Your task to perform on an android device: toggle airplane mode Image 0: 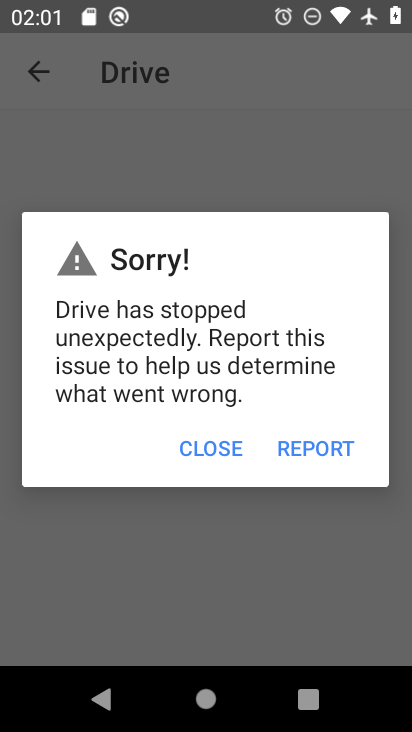
Step 0: press home button
Your task to perform on an android device: toggle airplane mode Image 1: 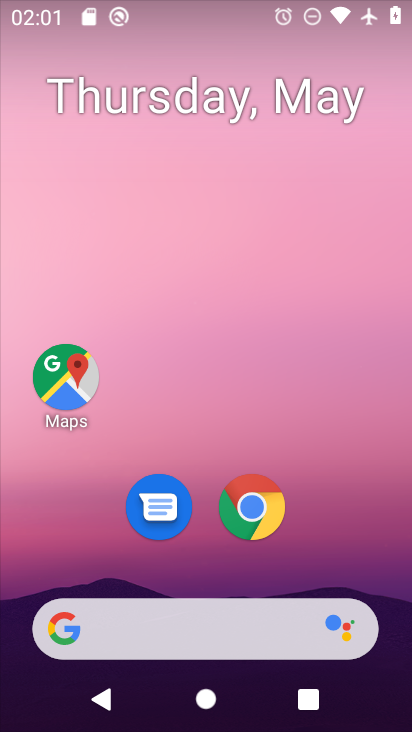
Step 1: drag from (348, 564) to (339, 131)
Your task to perform on an android device: toggle airplane mode Image 2: 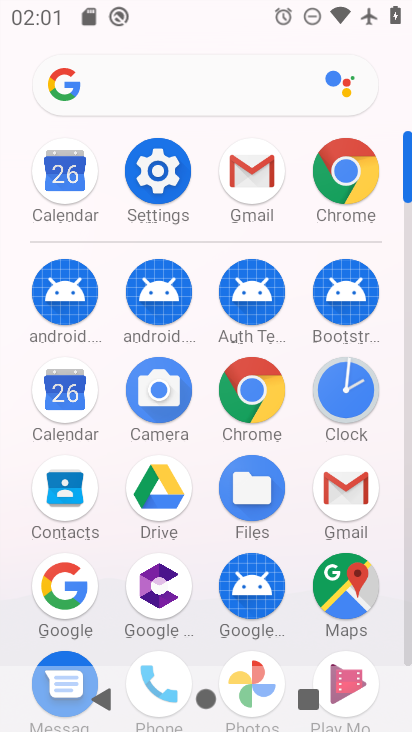
Step 2: click (147, 176)
Your task to perform on an android device: toggle airplane mode Image 3: 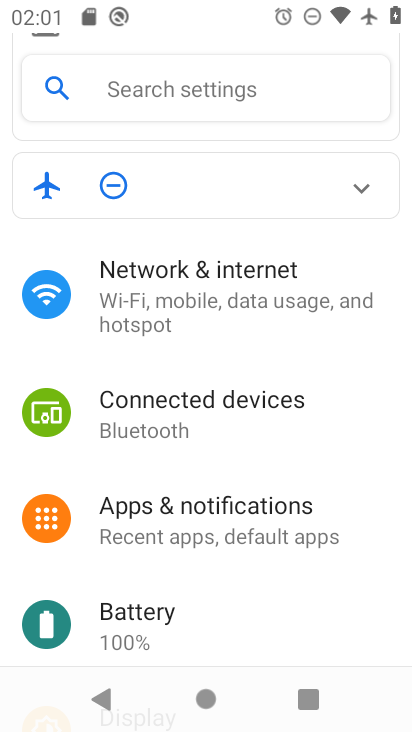
Step 3: click (354, 182)
Your task to perform on an android device: toggle airplane mode Image 4: 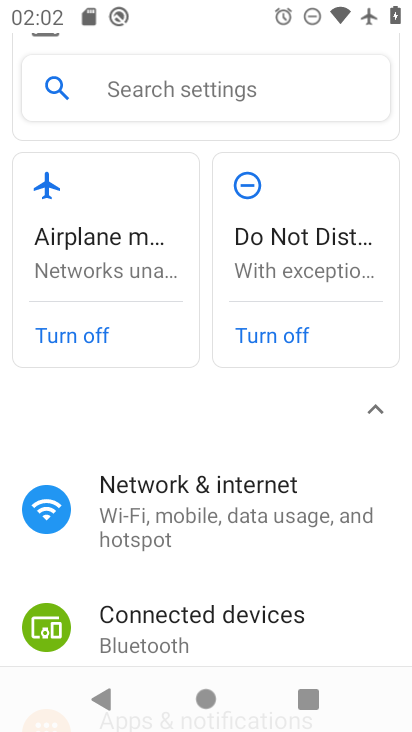
Step 4: click (111, 321)
Your task to perform on an android device: toggle airplane mode Image 5: 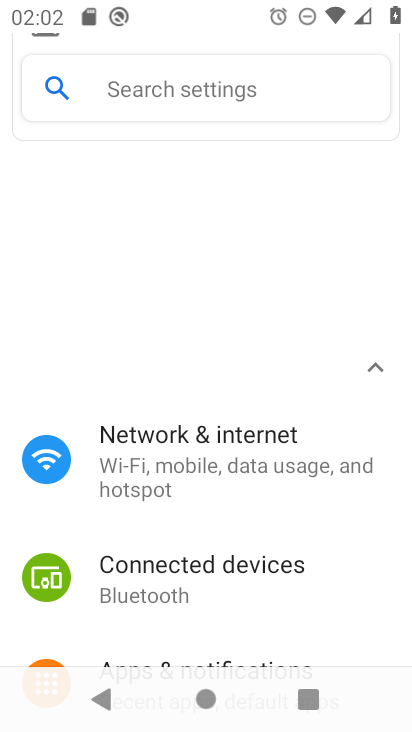
Step 5: click (278, 339)
Your task to perform on an android device: toggle airplane mode Image 6: 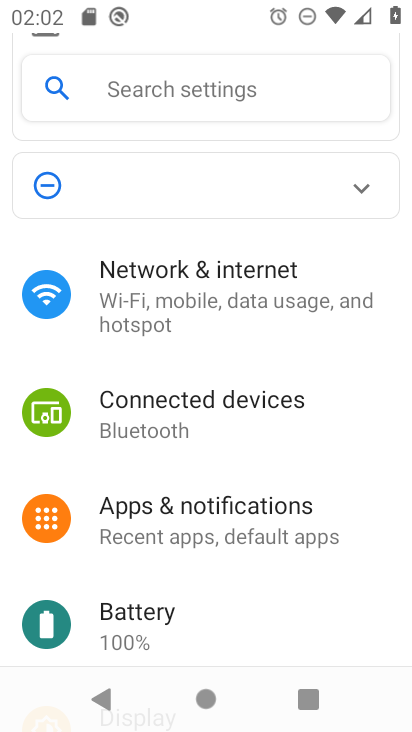
Step 6: click (359, 180)
Your task to perform on an android device: toggle airplane mode Image 7: 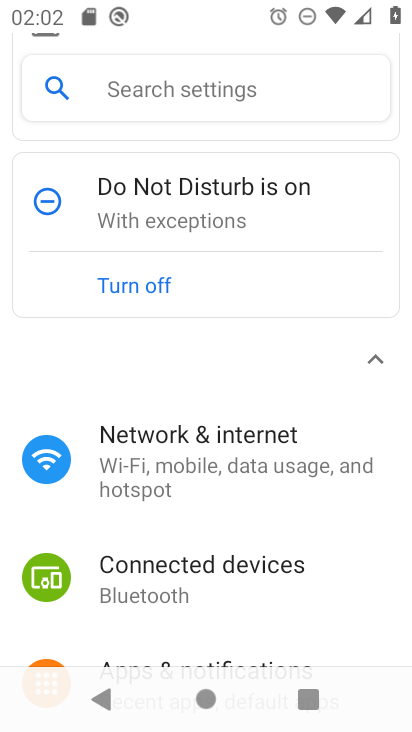
Step 7: click (168, 270)
Your task to perform on an android device: toggle airplane mode Image 8: 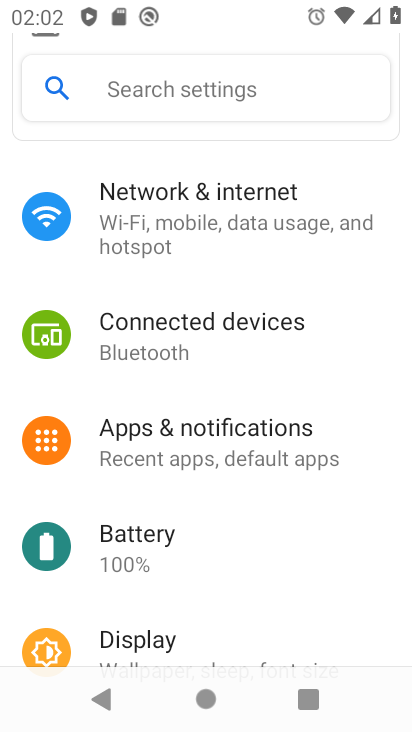
Step 8: task complete